Your task to perform on an android device: Open Reddit.com Image 0: 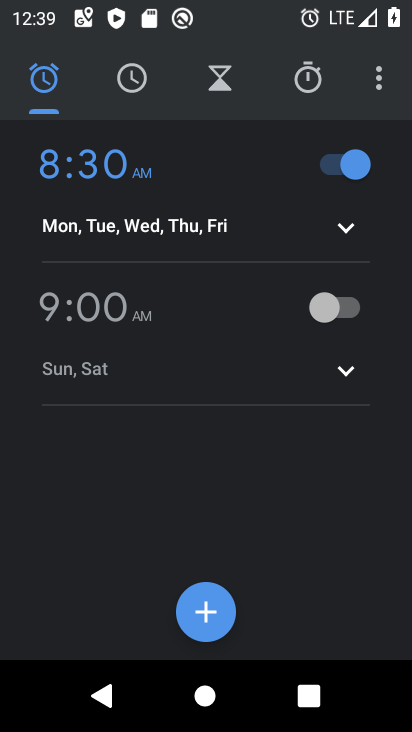
Step 0: press home button
Your task to perform on an android device: Open Reddit.com Image 1: 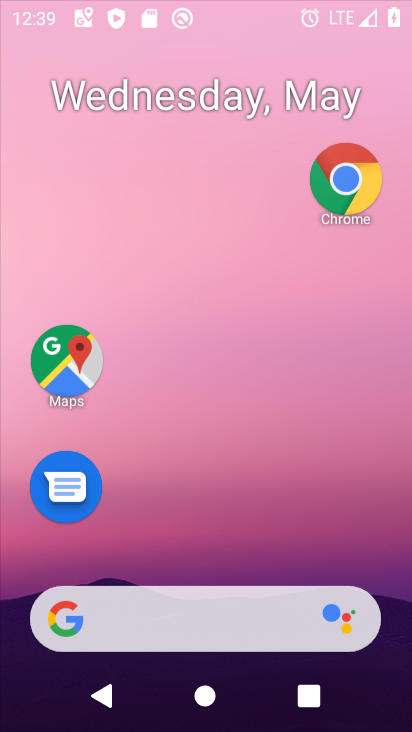
Step 1: drag from (205, 531) to (375, 5)
Your task to perform on an android device: Open Reddit.com Image 2: 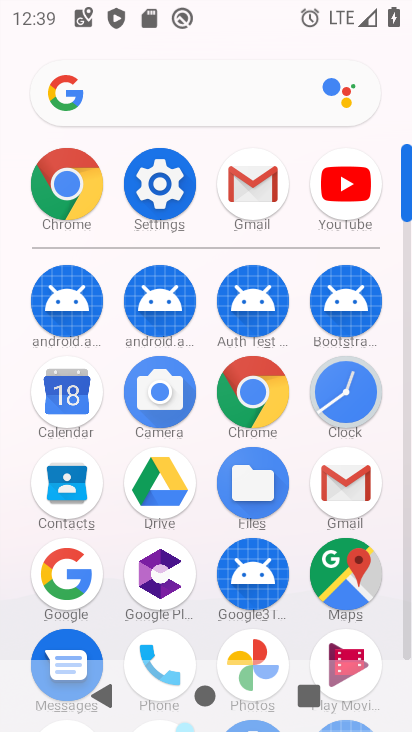
Step 2: click (179, 82)
Your task to perform on an android device: Open Reddit.com Image 3: 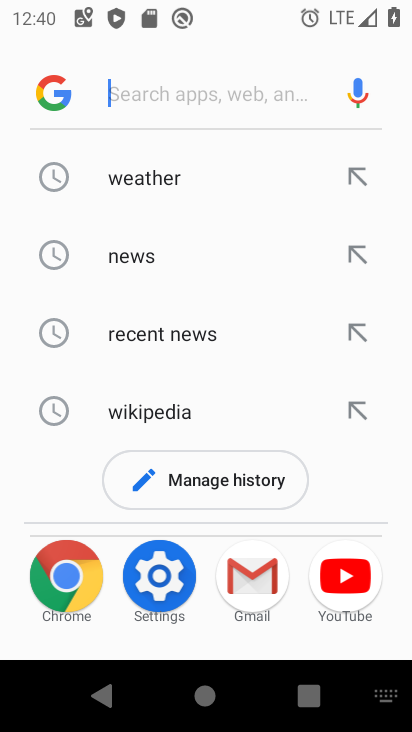
Step 3: type "reddit.com"
Your task to perform on an android device: Open Reddit.com Image 4: 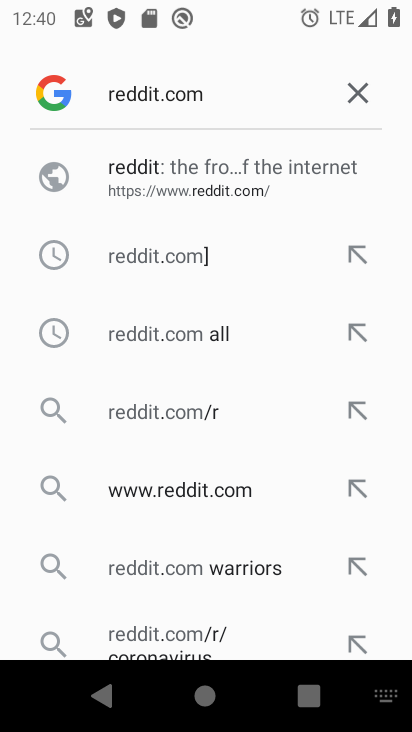
Step 4: click (184, 181)
Your task to perform on an android device: Open Reddit.com Image 5: 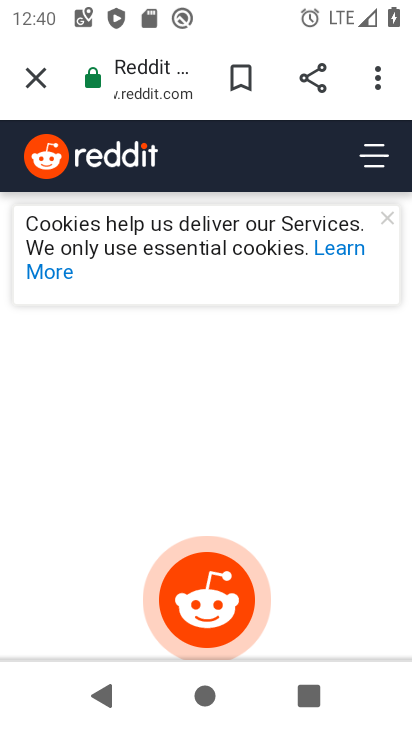
Step 5: task complete